Your task to perform on an android device: Open internet settings Image 0: 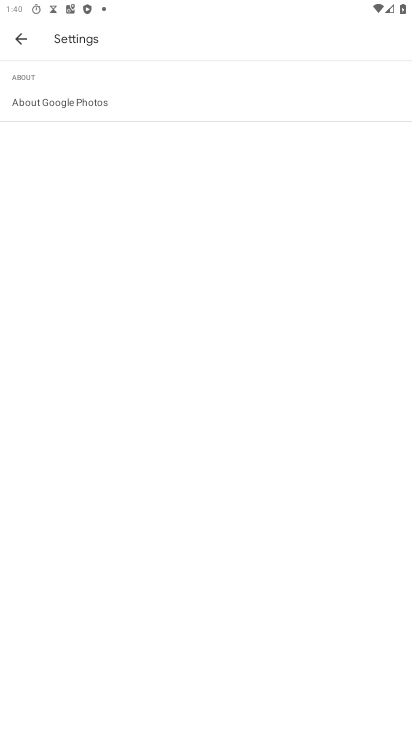
Step 0: press home button
Your task to perform on an android device: Open internet settings Image 1: 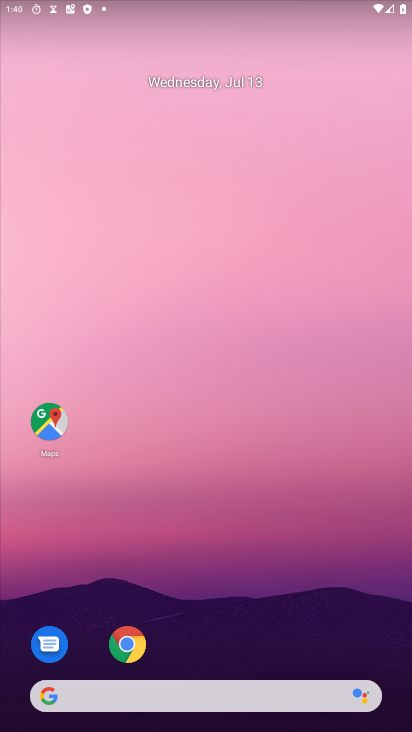
Step 1: drag from (277, 600) to (282, 8)
Your task to perform on an android device: Open internet settings Image 2: 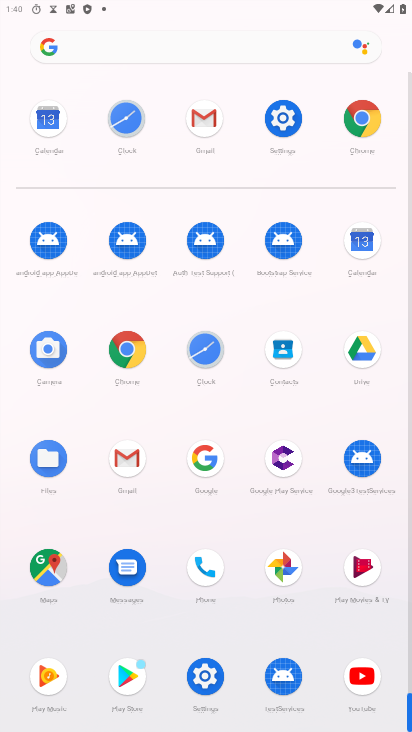
Step 2: click (280, 125)
Your task to perform on an android device: Open internet settings Image 3: 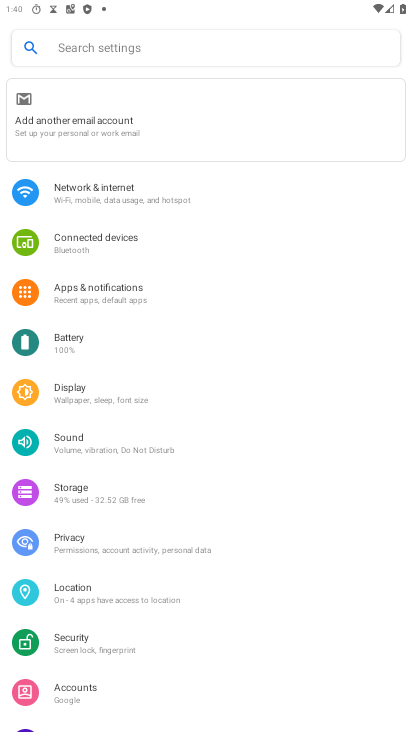
Step 3: click (88, 188)
Your task to perform on an android device: Open internet settings Image 4: 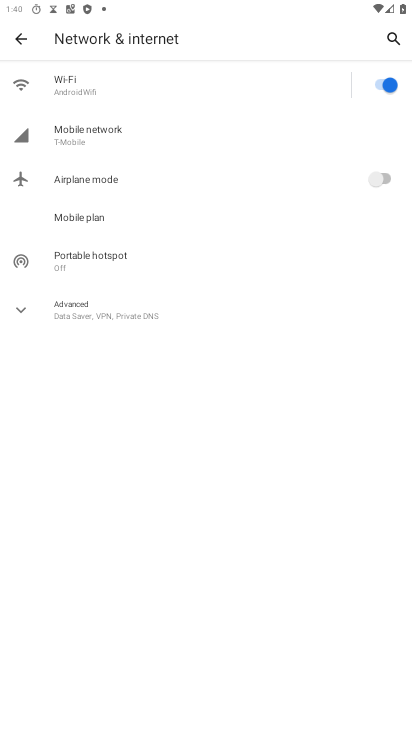
Step 4: task complete